Your task to perform on an android device: check out phone information Image 0: 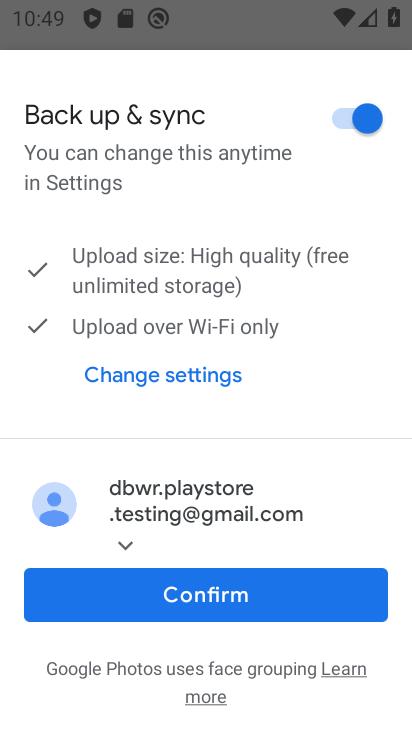
Step 0: press home button
Your task to perform on an android device: check out phone information Image 1: 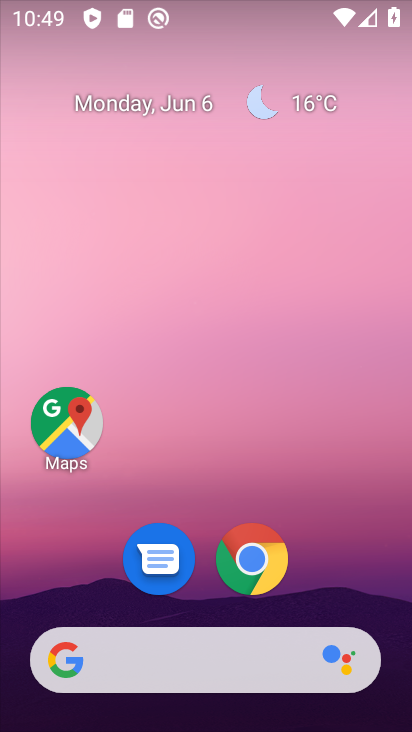
Step 1: drag from (99, 522) to (173, 149)
Your task to perform on an android device: check out phone information Image 2: 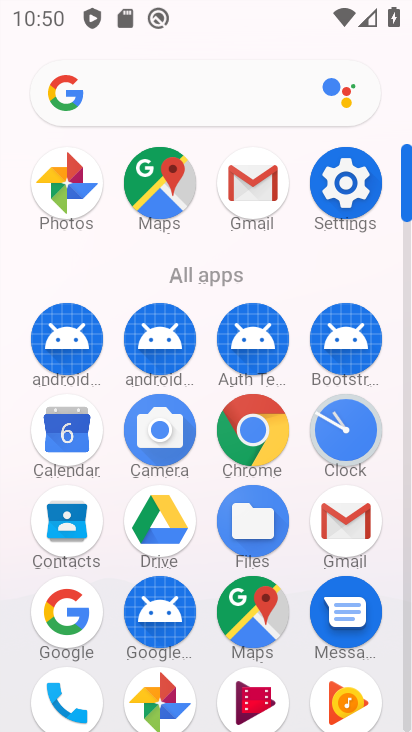
Step 2: drag from (157, 641) to (241, 275)
Your task to perform on an android device: check out phone information Image 3: 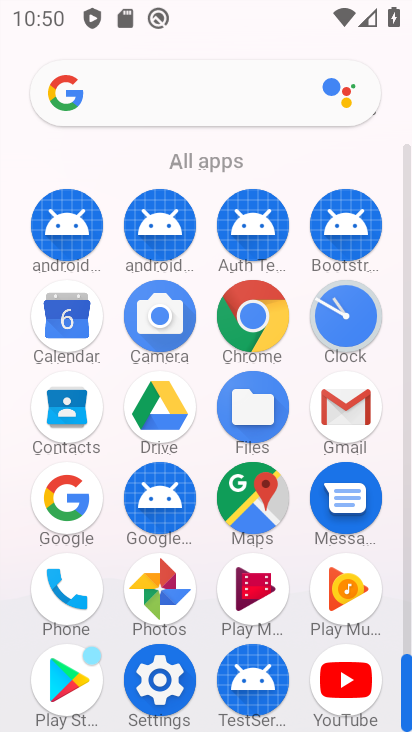
Step 3: click (149, 690)
Your task to perform on an android device: check out phone information Image 4: 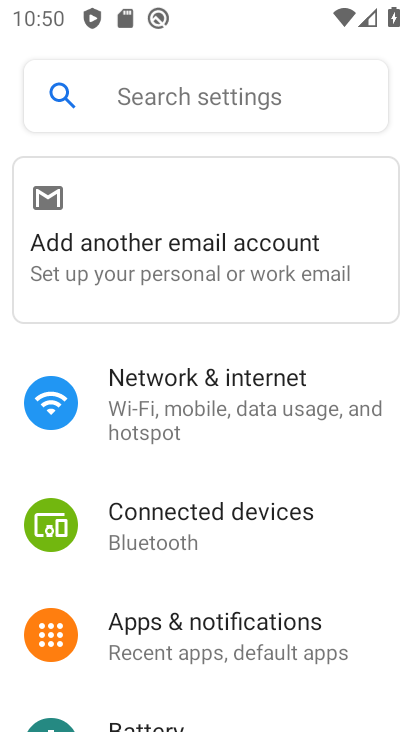
Step 4: drag from (204, 716) to (336, 61)
Your task to perform on an android device: check out phone information Image 5: 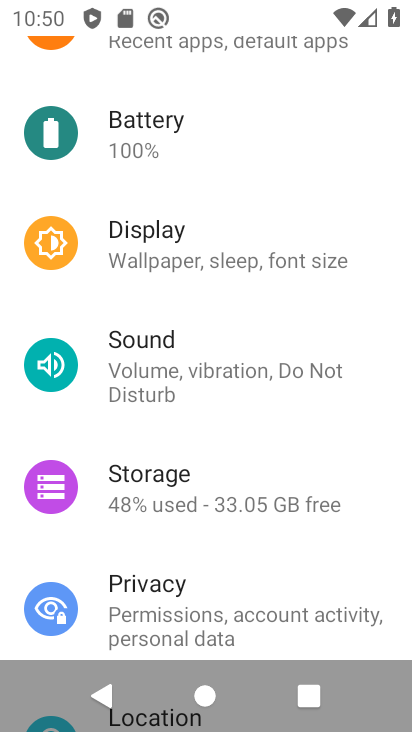
Step 5: drag from (270, 591) to (366, 70)
Your task to perform on an android device: check out phone information Image 6: 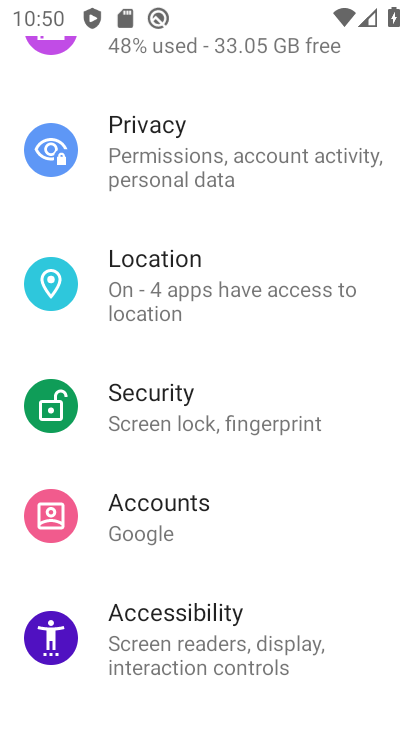
Step 6: drag from (285, 585) to (365, 124)
Your task to perform on an android device: check out phone information Image 7: 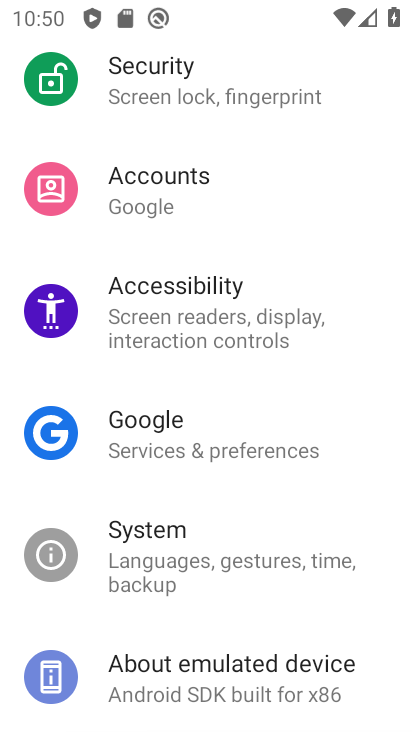
Step 7: click (224, 698)
Your task to perform on an android device: check out phone information Image 8: 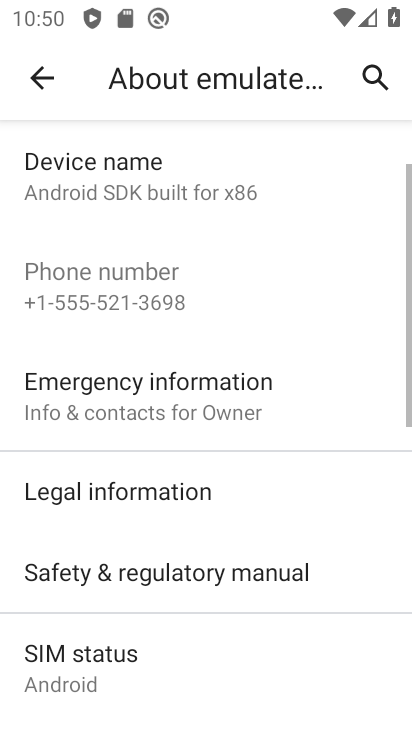
Step 8: task complete